Your task to perform on an android device: Toggle the flashlight Image 0: 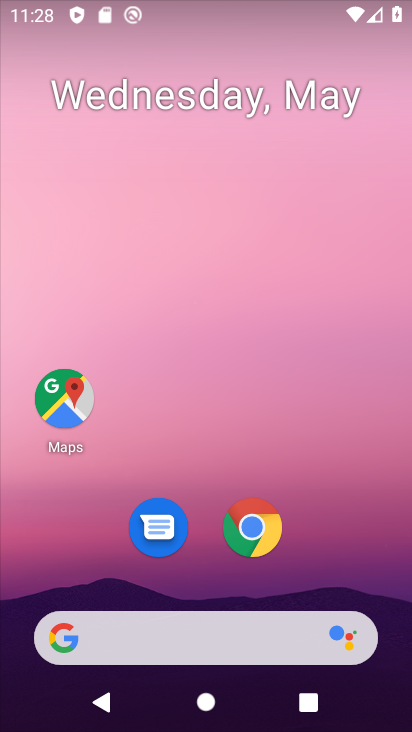
Step 0: drag from (318, 115) to (370, 514)
Your task to perform on an android device: Toggle the flashlight Image 1: 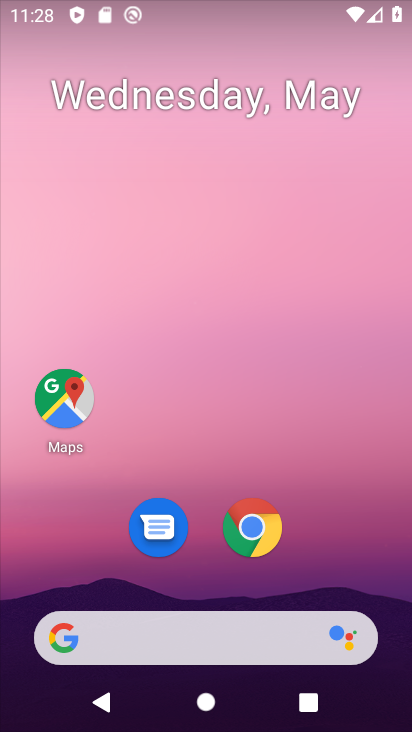
Step 1: task complete